Your task to perform on an android device: Toggle the flashlight Image 0: 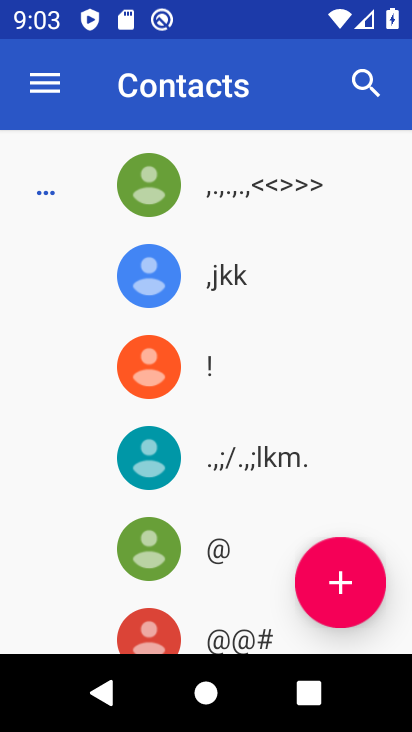
Step 0: press home button
Your task to perform on an android device: Toggle the flashlight Image 1: 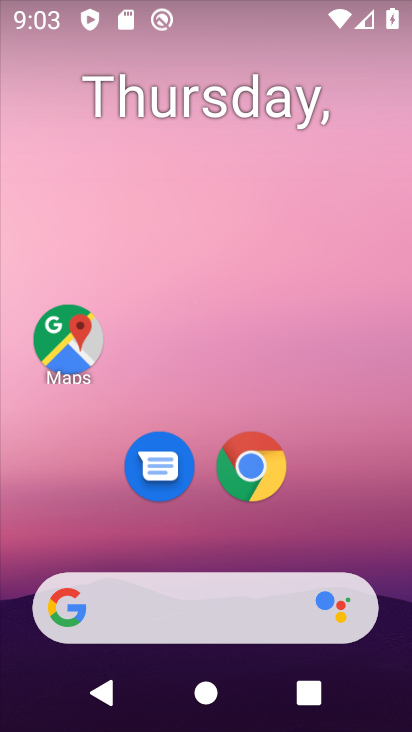
Step 1: drag from (395, 629) to (230, 66)
Your task to perform on an android device: Toggle the flashlight Image 2: 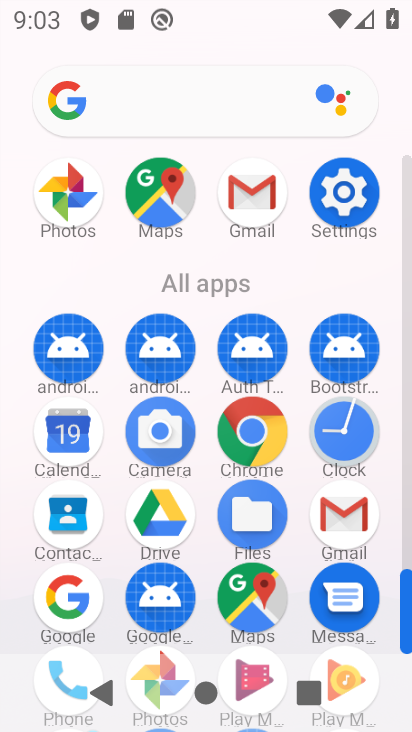
Step 2: click (345, 211)
Your task to perform on an android device: Toggle the flashlight Image 3: 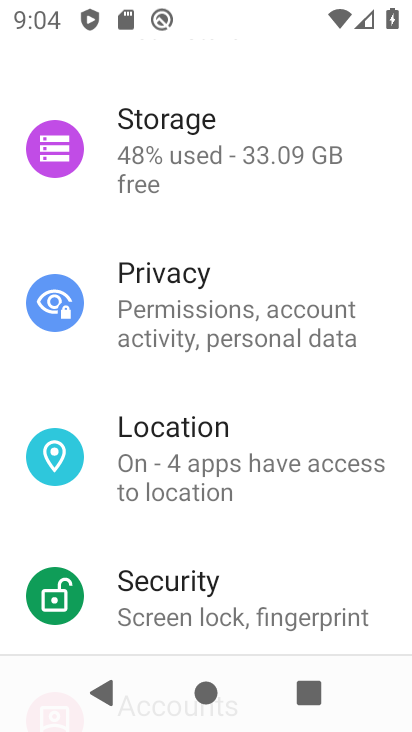
Step 3: task complete